Your task to perform on an android device: Open the stopwatch Image 0: 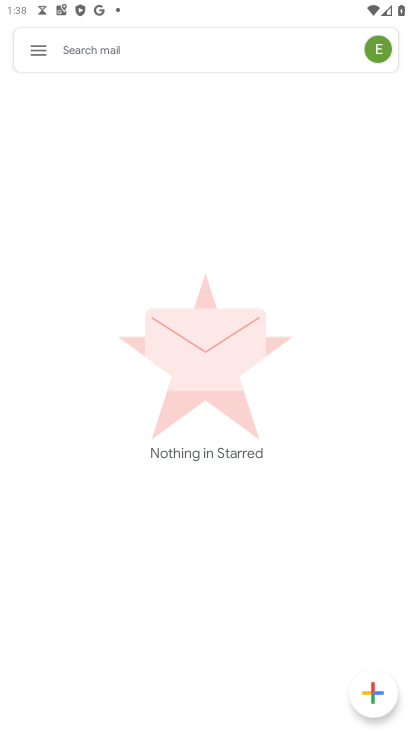
Step 0: press home button
Your task to perform on an android device: Open the stopwatch Image 1: 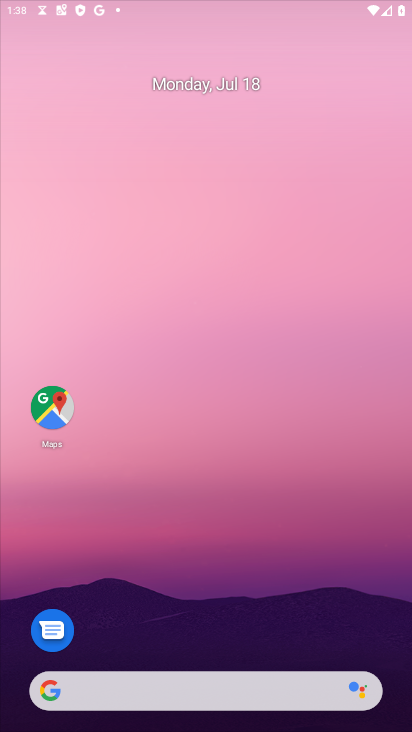
Step 1: drag from (262, 674) to (281, 3)
Your task to perform on an android device: Open the stopwatch Image 2: 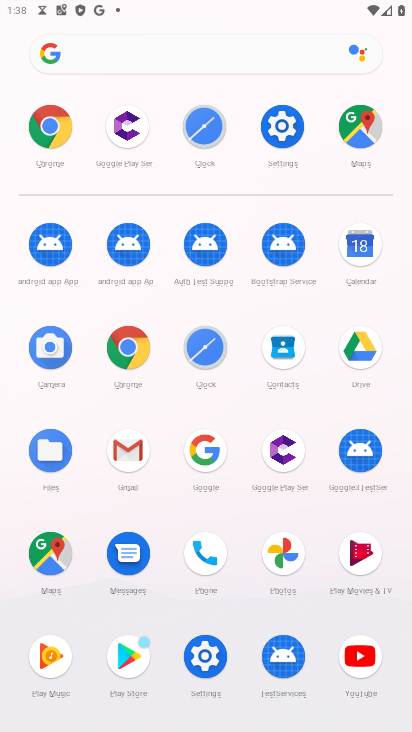
Step 2: click (197, 349)
Your task to perform on an android device: Open the stopwatch Image 3: 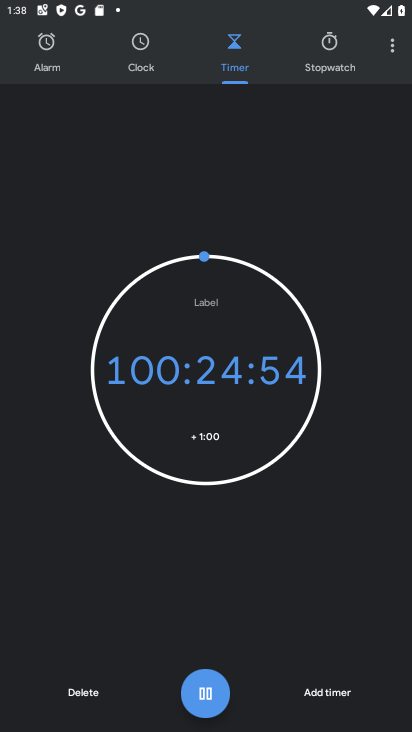
Step 3: click (341, 46)
Your task to perform on an android device: Open the stopwatch Image 4: 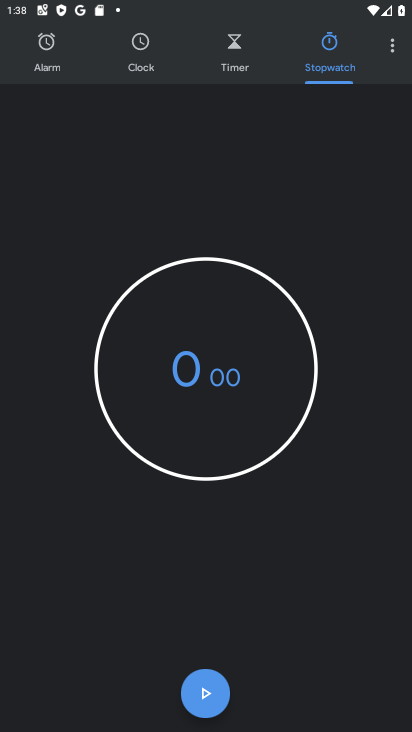
Step 4: click (206, 699)
Your task to perform on an android device: Open the stopwatch Image 5: 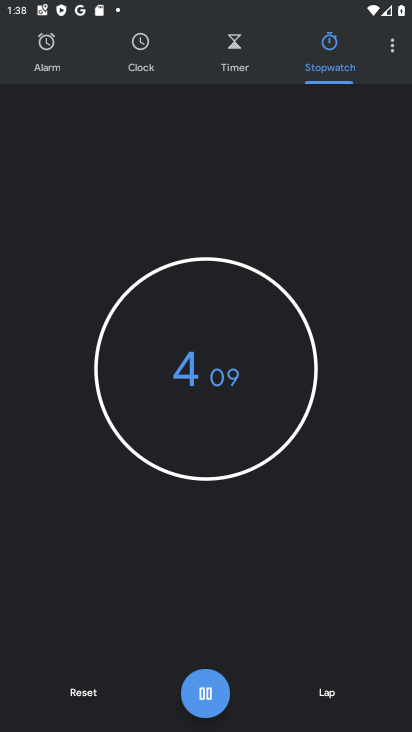
Step 5: task complete